Your task to perform on an android device: turn on wifi Image 0: 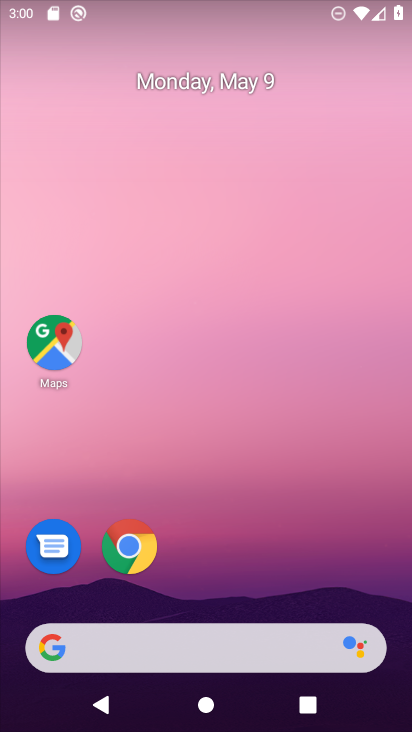
Step 0: drag from (216, 471) to (239, 179)
Your task to perform on an android device: turn on wifi Image 1: 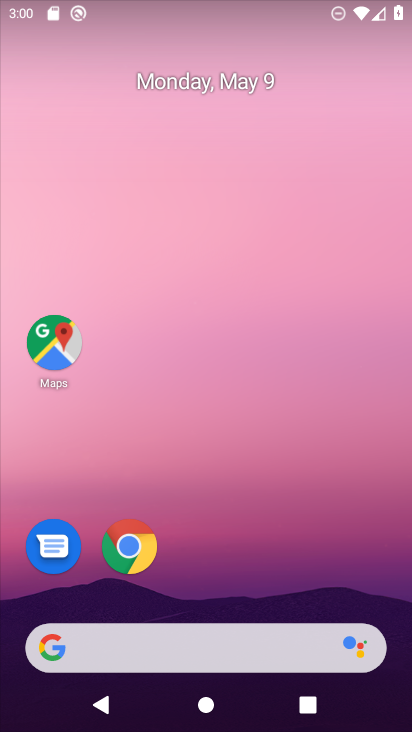
Step 1: drag from (207, 490) to (264, 86)
Your task to perform on an android device: turn on wifi Image 2: 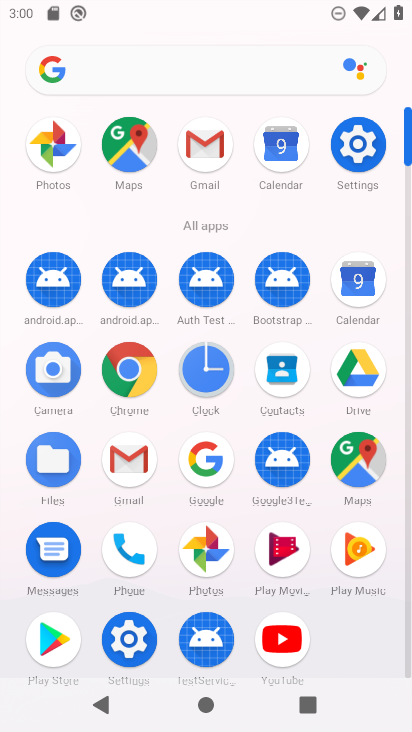
Step 2: click (359, 164)
Your task to perform on an android device: turn on wifi Image 3: 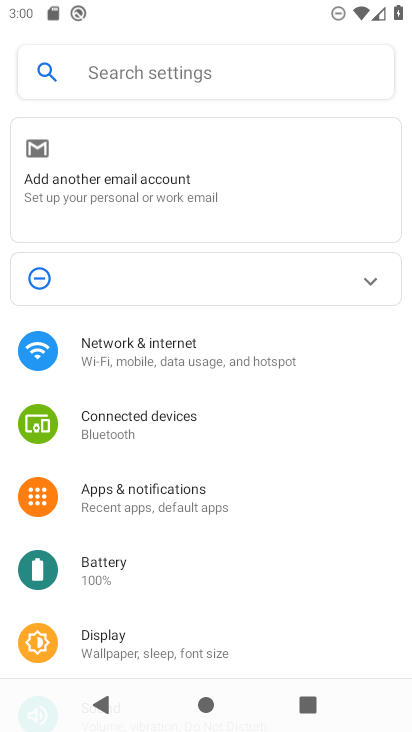
Step 3: click (210, 358)
Your task to perform on an android device: turn on wifi Image 4: 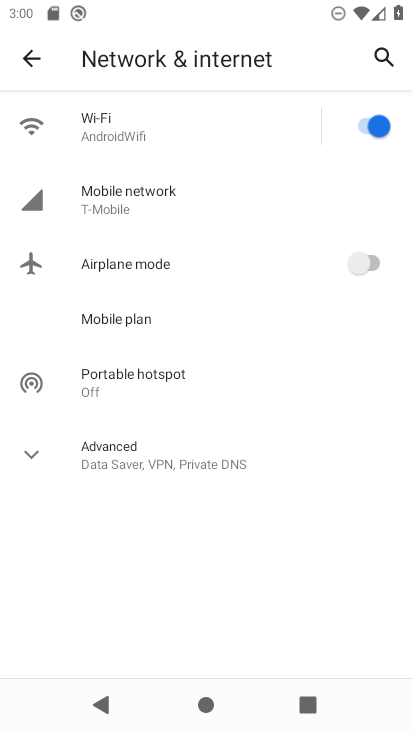
Step 4: task complete